Your task to perform on an android device: check storage Image 0: 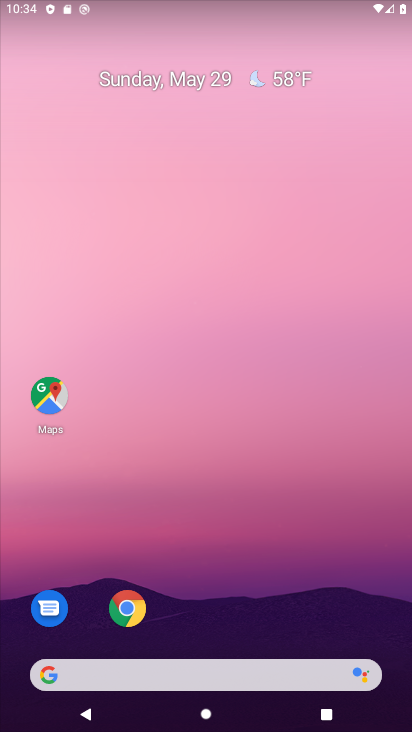
Step 0: drag from (165, 533) to (184, 203)
Your task to perform on an android device: check storage Image 1: 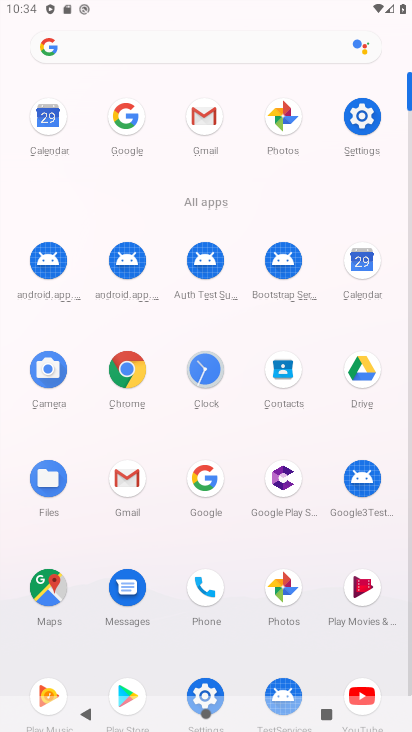
Step 1: click (360, 114)
Your task to perform on an android device: check storage Image 2: 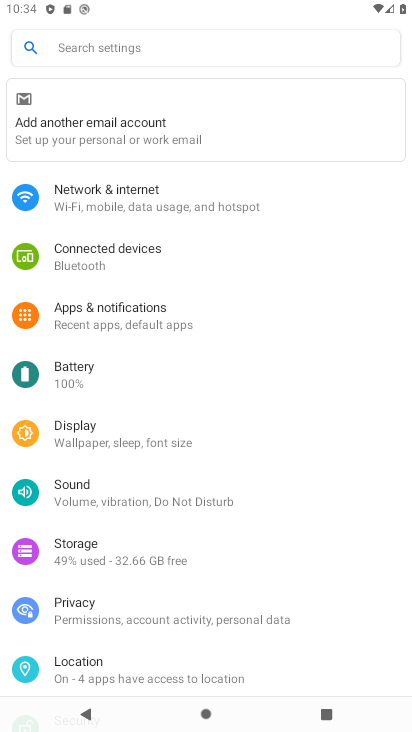
Step 2: click (97, 559)
Your task to perform on an android device: check storage Image 3: 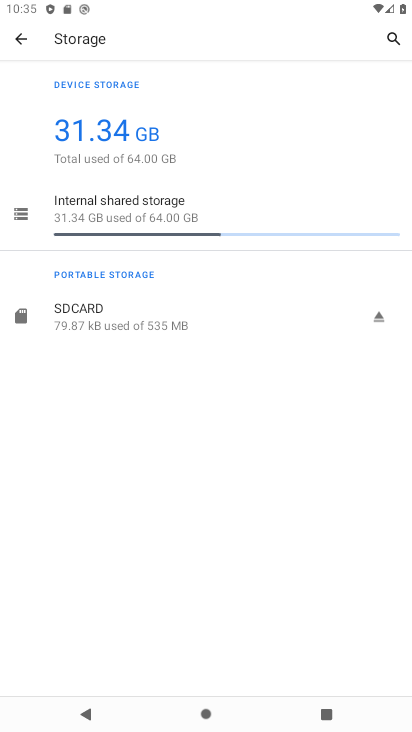
Step 3: task complete